Your task to perform on an android device: empty trash in google photos Image 0: 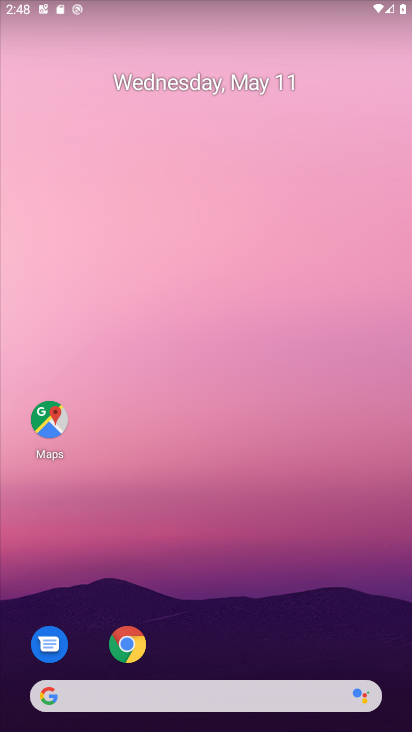
Step 0: drag from (247, 666) to (200, 10)
Your task to perform on an android device: empty trash in google photos Image 1: 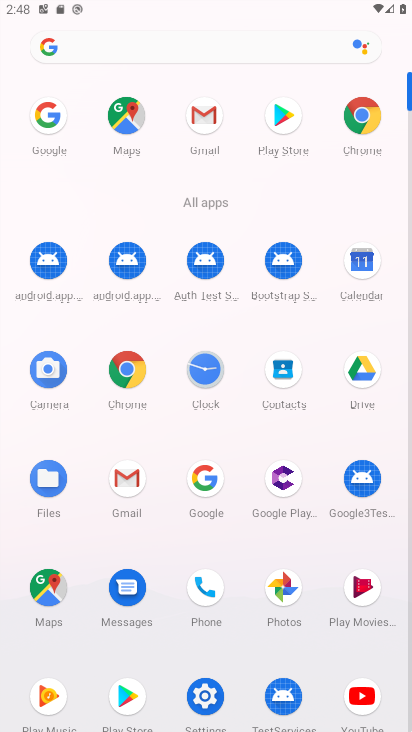
Step 1: click (288, 592)
Your task to perform on an android device: empty trash in google photos Image 2: 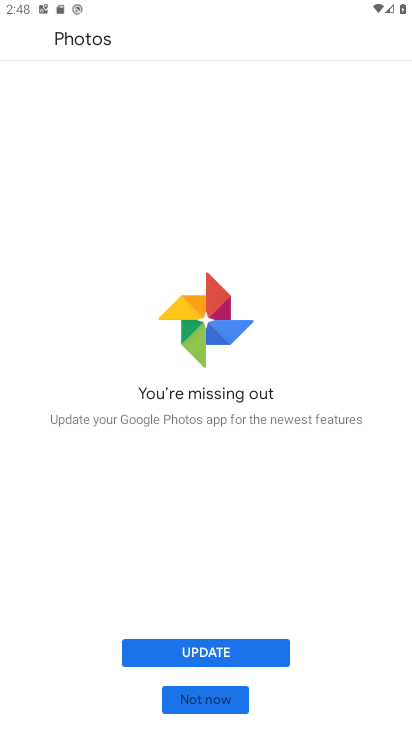
Step 2: click (208, 694)
Your task to perform on an android device: empty trash in google photos Image 3: 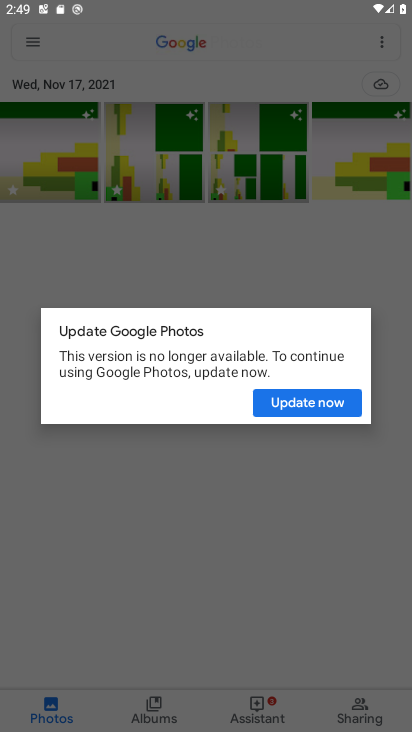
Step 3: click (299, 410)
Your task to perform on an android device: empty trash in google photos Image 4: 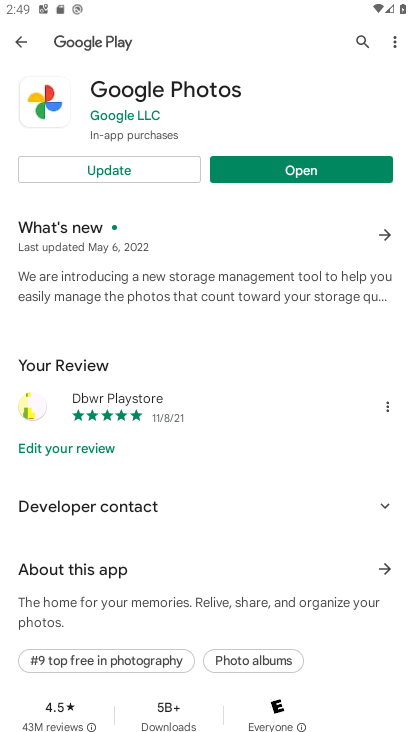
Step 4: click (251, 168)
Your task to perform on an android device: empty trash in google photos Image 5: 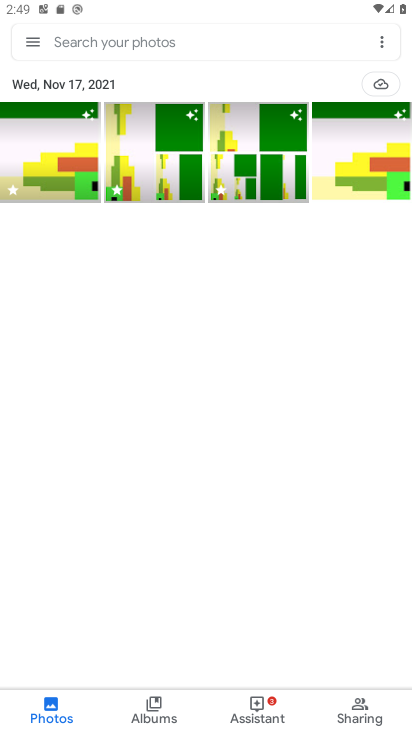
Step 5: click (33, 34)
Your task to perform on an android device: empty trash in google photos Image 6: 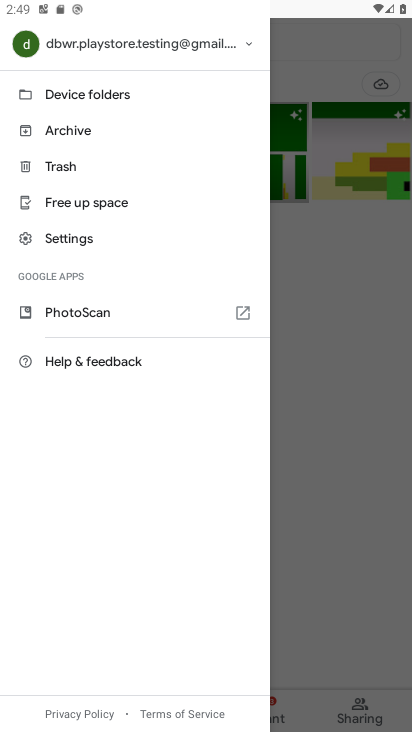
Step 6: click (53, 166)
Your task to perform on an android device: empty trash in google photos Image 7: 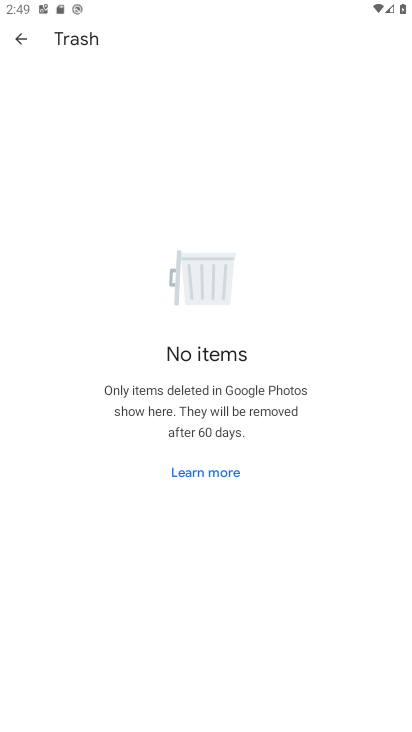
Step 7: task complete